Your task to perform on an android device: check data usage Image 0: 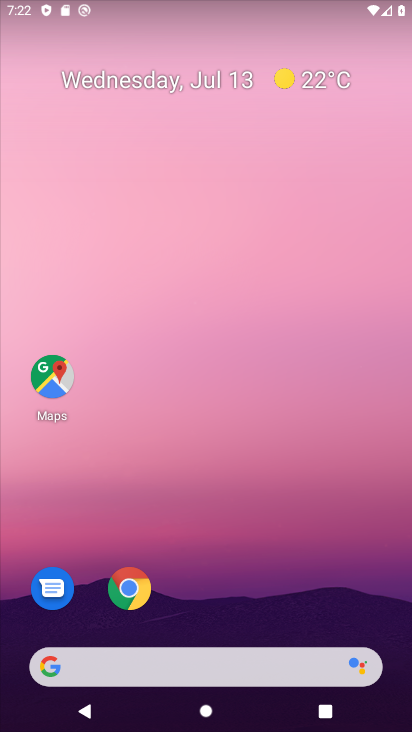
Step 0: drag from (241, 657) to (251, 280)
Your task to perform on an android device: check data usage Image 1: 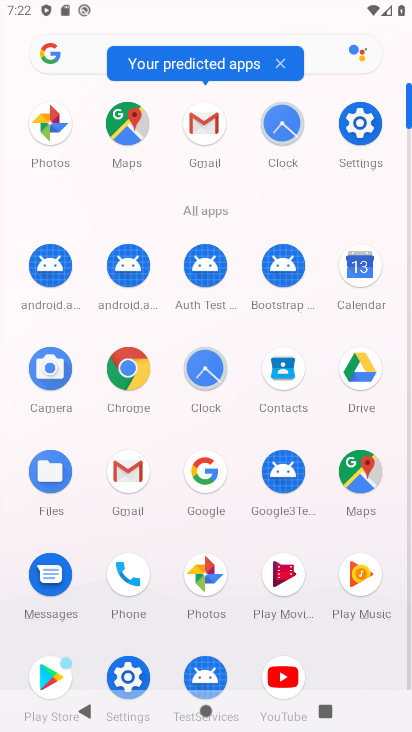
Step 1: click (340, 116)
Your task to perform on an android device: check data usage Image 2: 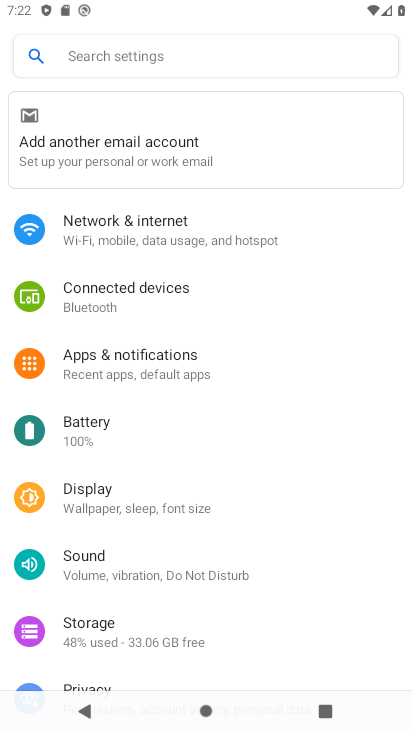
Step 2: click (158, 213)
Your task to perform on an android device: check data usage Image 3: 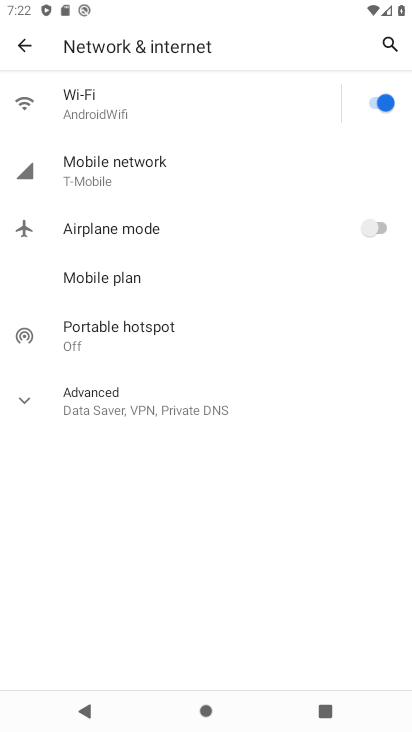
Step 3: click (116, 179)
Your task to perform on an android device: check data usage Image 4: 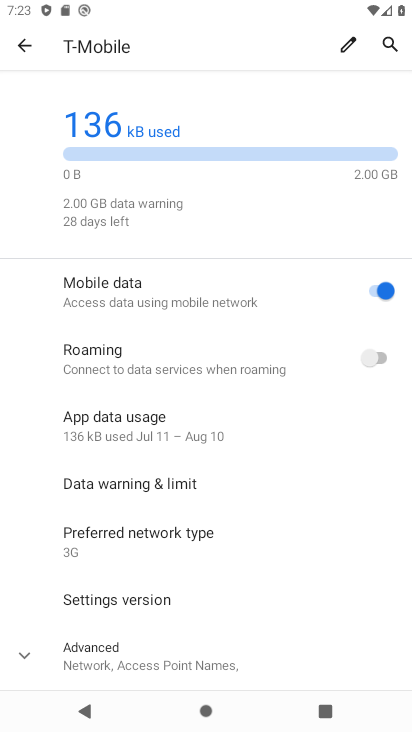
Step 4: task complete